Your task to perform on an android device: turn off location Image 0: 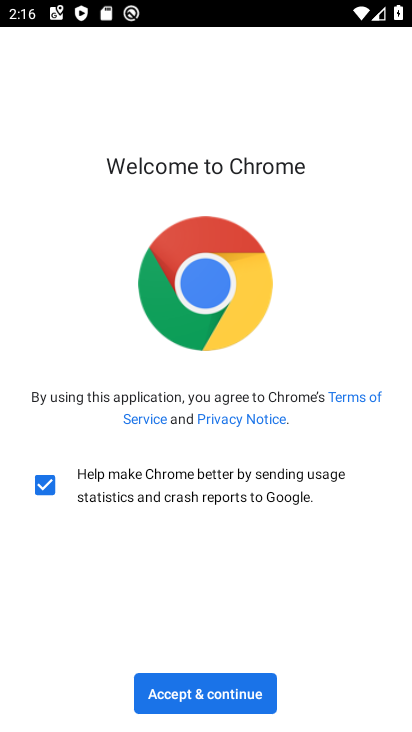
Step 0: press home button
Your task to perform on an android device: turn off location Image 1: 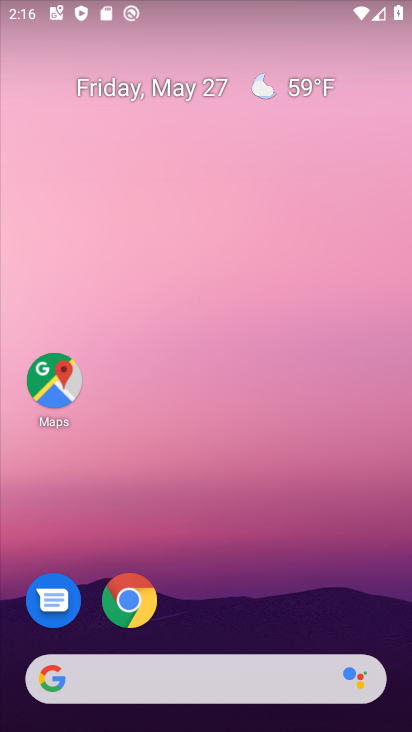
Step 1: drag from (244, 543) to (157, 193)
Your task to perform on an android device: turn off location Image 2: 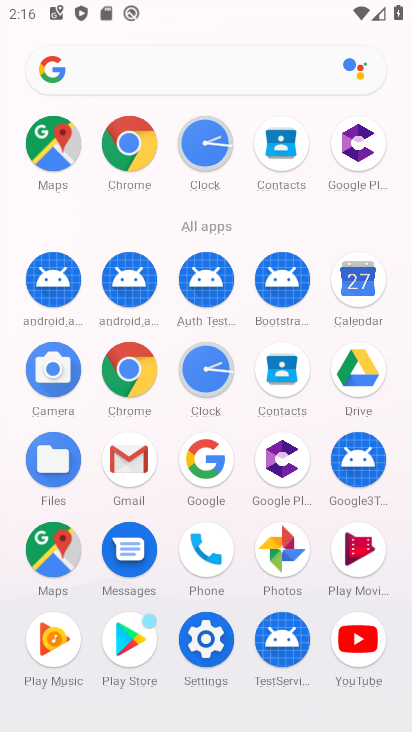
Step 2: click (206, 639)
Your task to perform on an android device: turn off location Image 3: 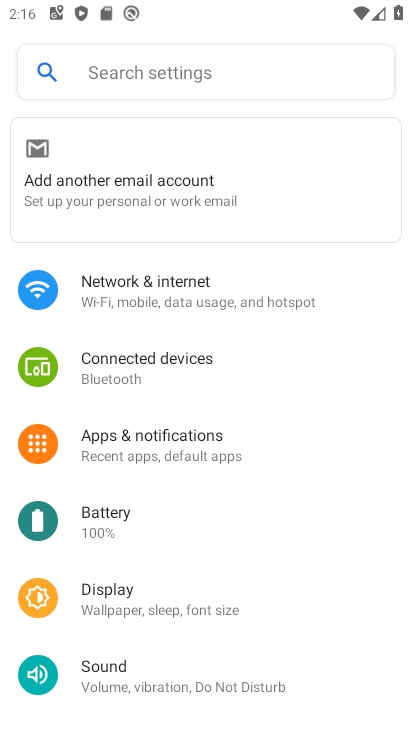
Step 3: drag from (194, 533) to (220, 435)
Your task to perform on an android device: turn off location Image 4: 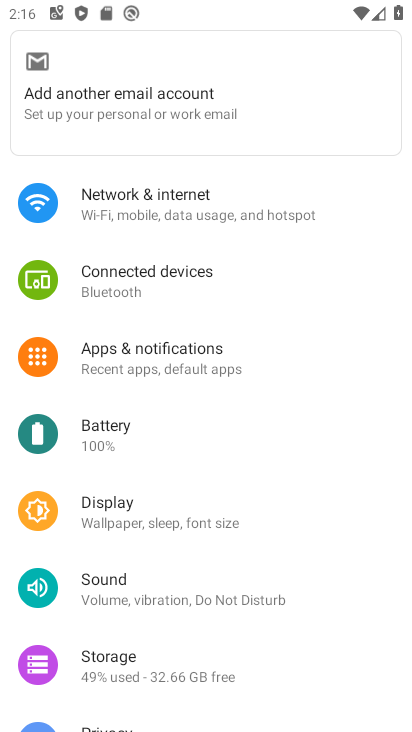
Step 4: drag from (182, 562) to (201, 483)
Your task to perform on an android device: turn off location Image 5: 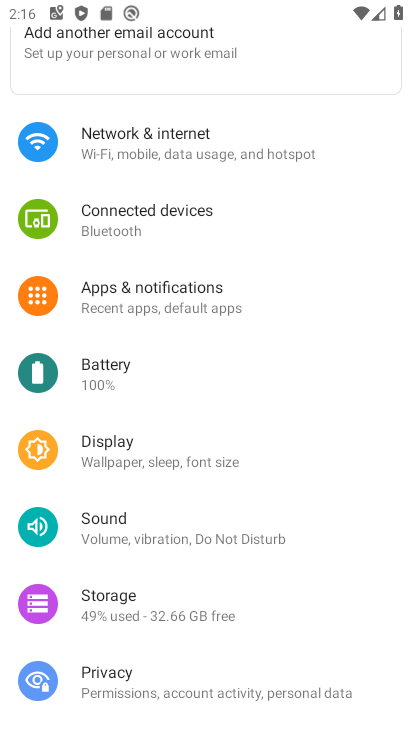
Step 5: drag from (148, 647) to (226, 542)
Your task to perform on an android device: turn off location Image 6: 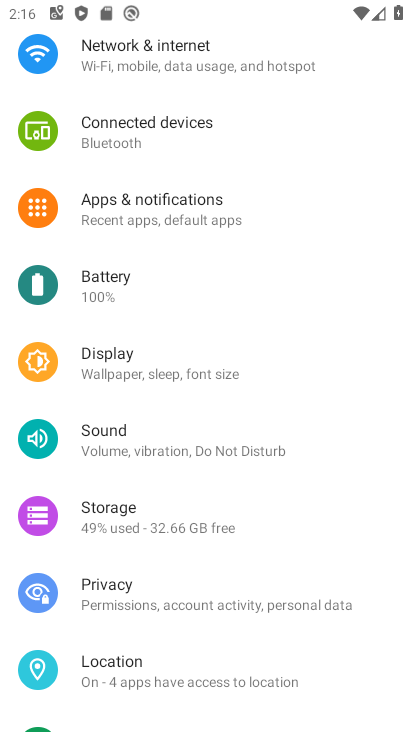
Step 6: drag from (158, 631) to (238, 543)
Your task to perform on an android device: turn off location Image 7: 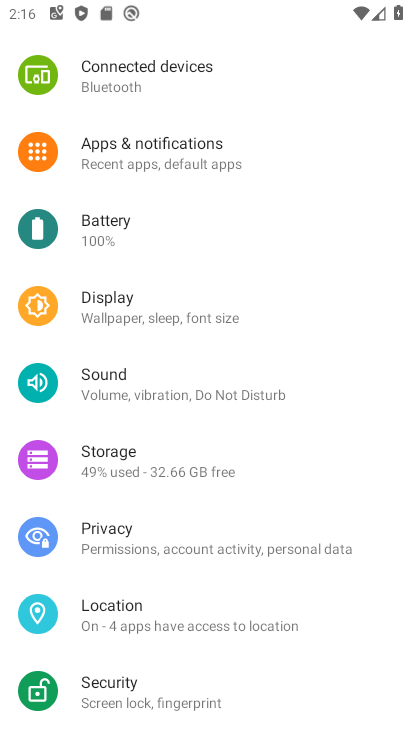
Step 7: click (181, 620)
Your task to perform on an android device: turn off location Image 8: 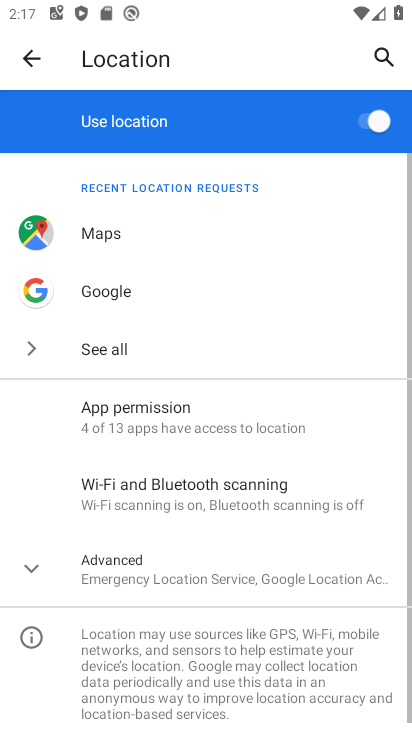
Step 8: click (369, 118)
Your task to perform on an android device: turn off location Image 9: 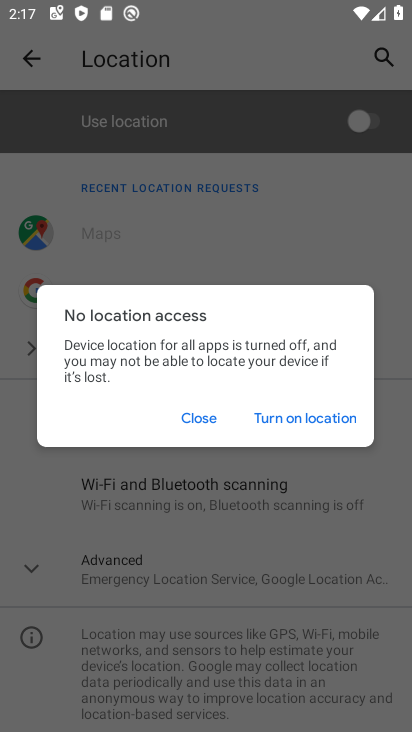
Step 9: click (192, 428)
Your task to perform on an android device: turn off location Image 10: 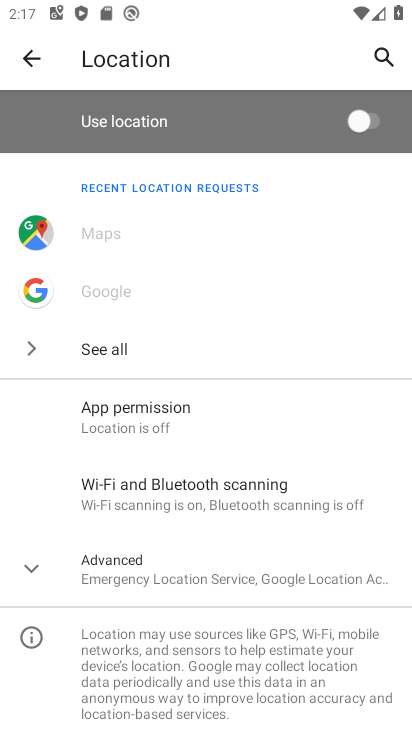
Step 10: task complete